Your task to perform on an android device: set default search engine in the chrome app Image 0: 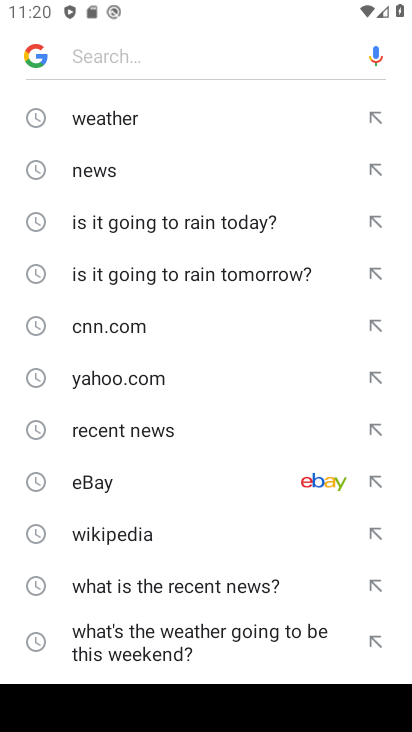
Step 0: press home button
Your task to perform on an android device: set default search engine in the chrome app Image 1: 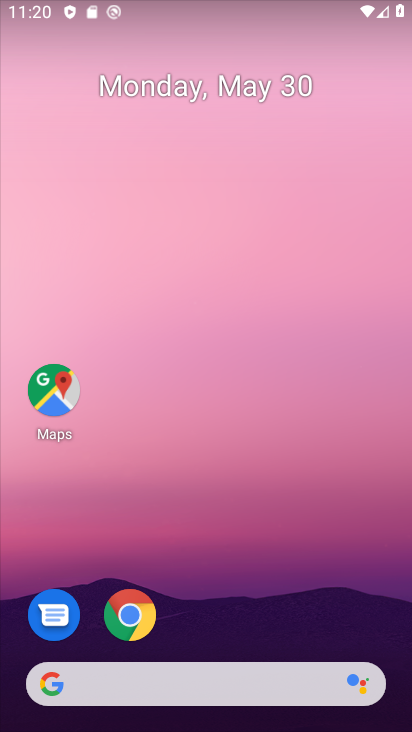
Step 1: drag from (323, 492) to (329, 222)
Your task to perform on an android device: set default search engine in the chrome app Image 2: 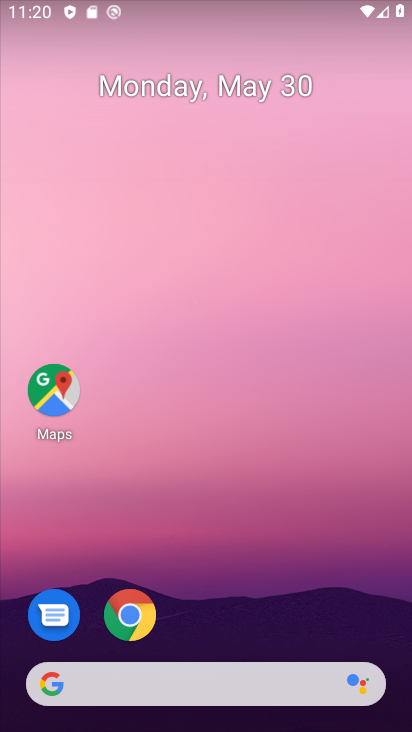
Step 2: drag from (308, 498) to (312, 50)
Your task to perform on an android device: set default search engine in the chrome app Image 3: 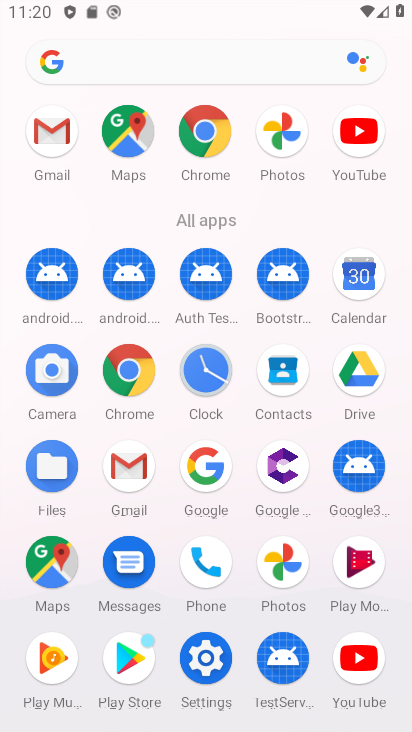
Step 3: click (140, 386)
Your task to perform on an android device: set default search engine in the chrome app Image 4: 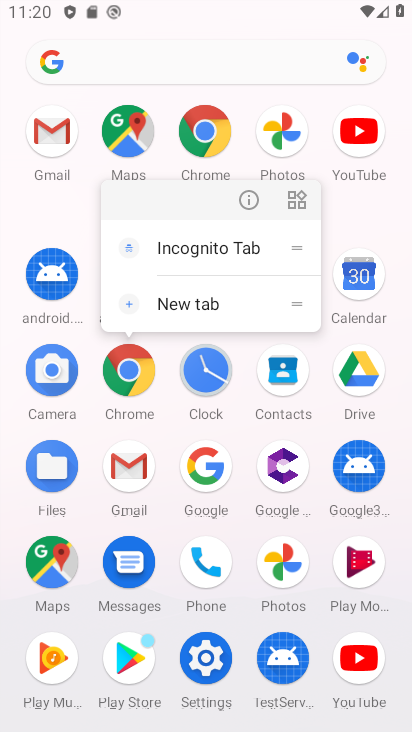
Step 4: click (140, 386)
Your task to perform on an android device: set default search engine in the chrome app Image 5: 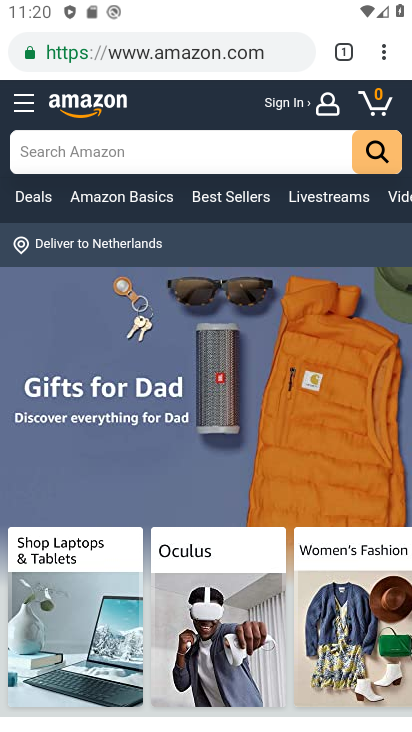
Step 5: click (387, 55)
Your task to perform on an android device: set default search engine in the chrome app Image 6: 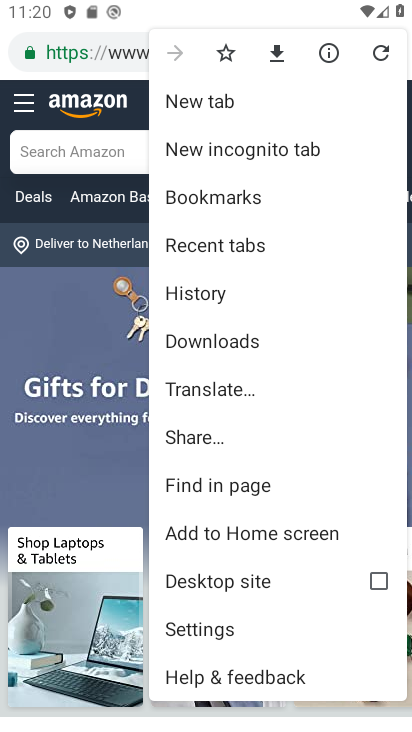
Step 6: drag from (349, 422) to (352, 177)
Your task to perform on an android device: set default search engine in the chrome app Image 7: 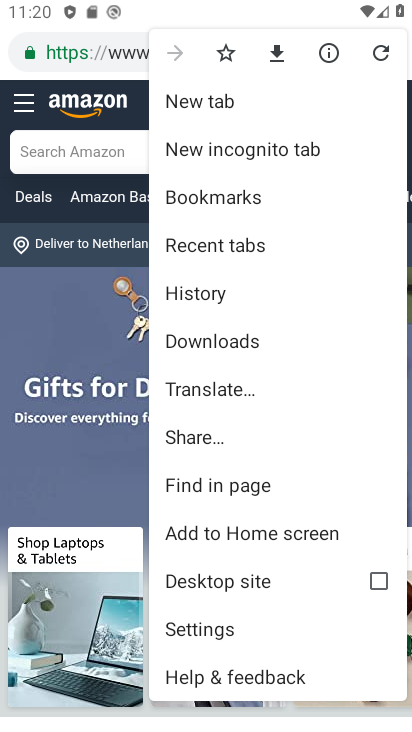
Step 7: click (224, 631)
Your task to perform on an android device: set default search engine in the chrome app Image 8: 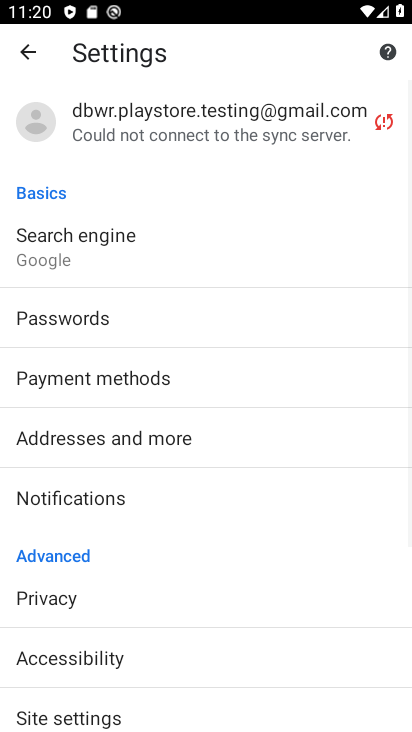
Step 8: drag from (311, 584) to (320, 434)
Your task to perform on an android device: set default search engine in the chrome app Image 9: 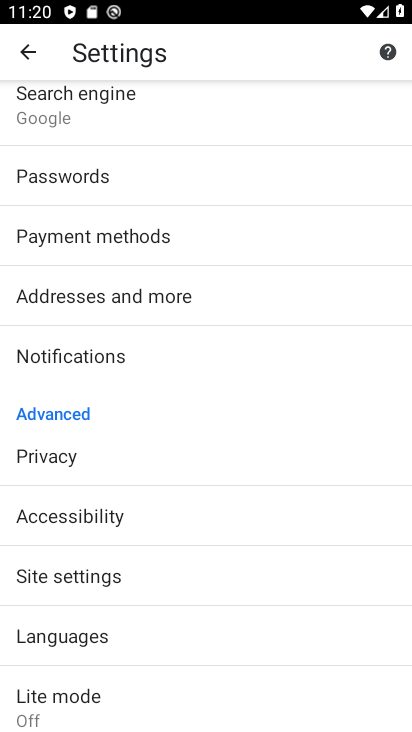
Step 9: drag from (327, 581) to (331, 456)
Your task to perform on an android device: set default search engine in the chrome app Image 10: 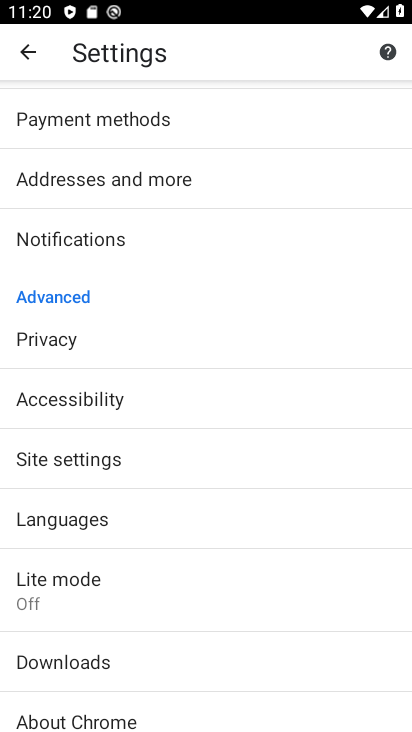
Step 10: drag from (335, 574) to (341, 512)
Your task to perform on an android device: set default search engine in the chrome app Image 11: 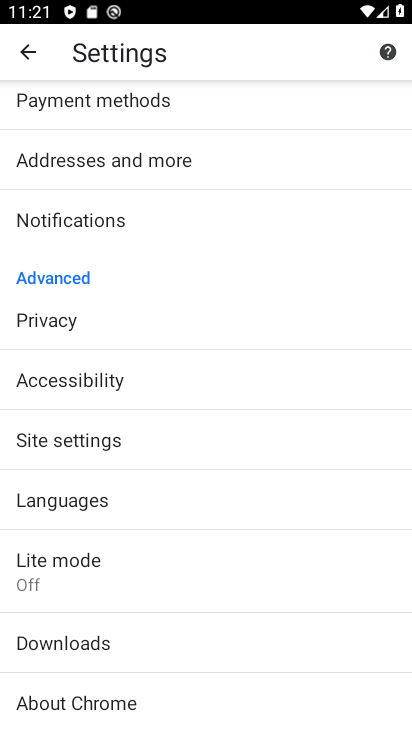
Step 11: drag from (327, 578) to (306, 375)
Your task to perform on an android device: set default search engine in the chrome app Image 12: 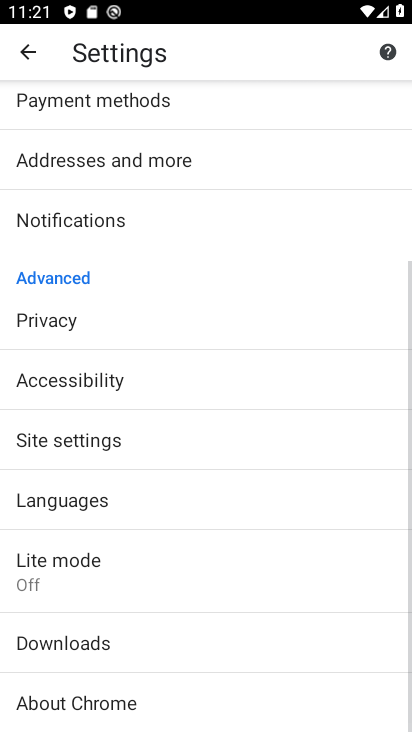
Step 12: drag from (302, 348) to (286, 392)
Your task to perform on an android device: set default search engine in the chrome app Image 13: 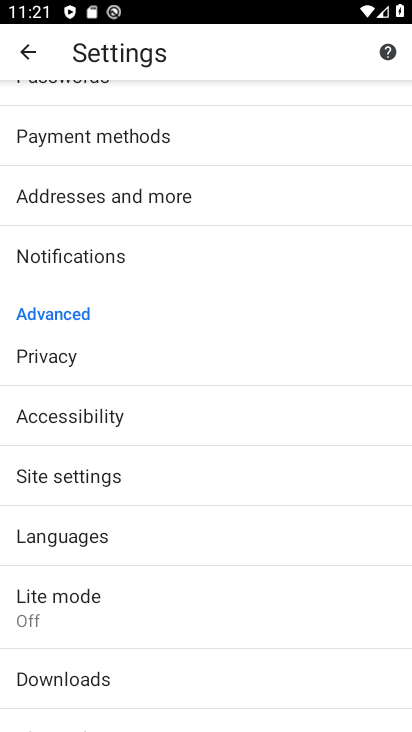
Step 13: click (291, 346)
Your task to perform on an android device: set default search engine in the chrome app Image 14: 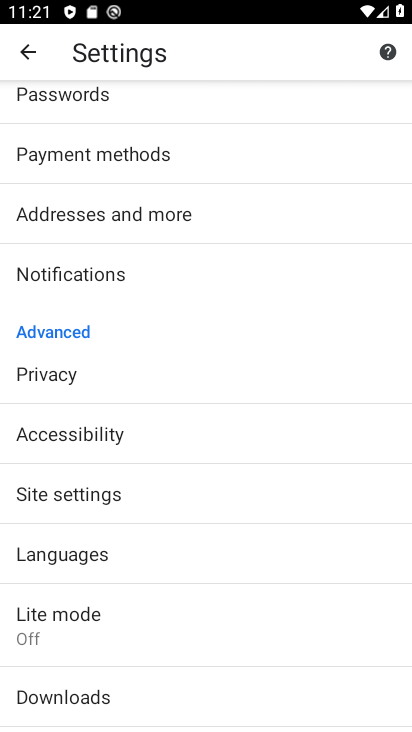
Step 14: drag from (290, 259) to (290, 411)
Your task to perform on an android device: set default search engine in the chrome app Image 15: 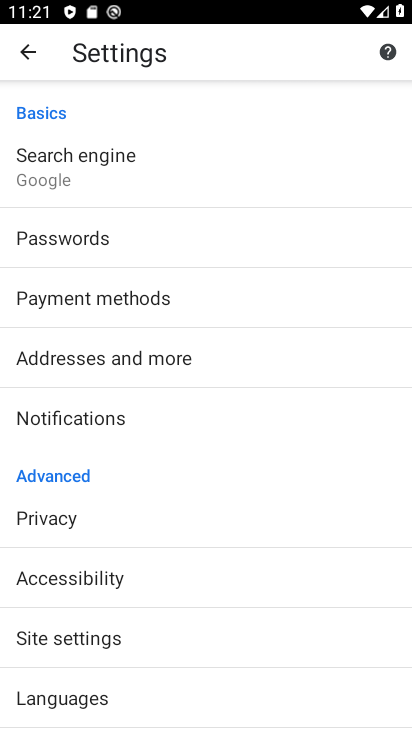
Step 15: drag from (297, 279) to (295, 344)
Your task to perform on an android device: set default search engine in the chrome app Image 16: 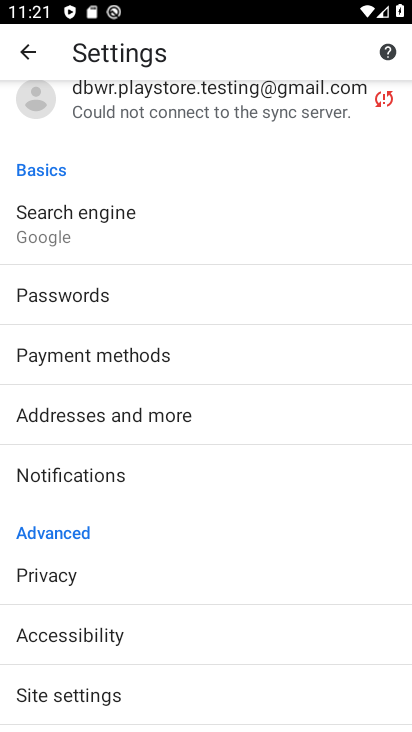
Step 16: click (162, 212)
Your task to perform on an android device: set default search engine in the chrome app Image 17: 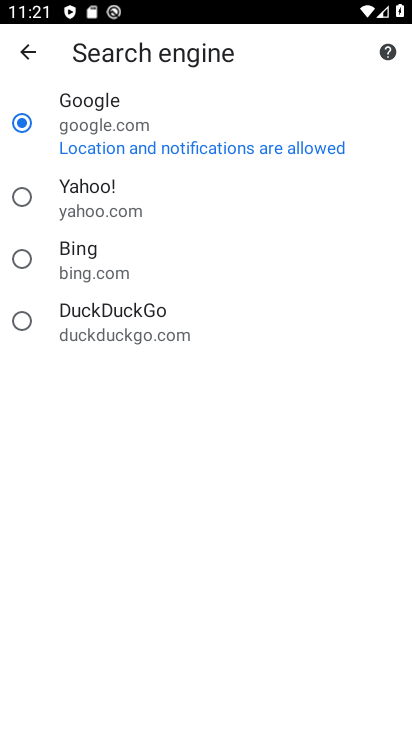
Step 17: click (109, 259)
Your task to perform on an android device: set default search engine in the chrome app Image 18: 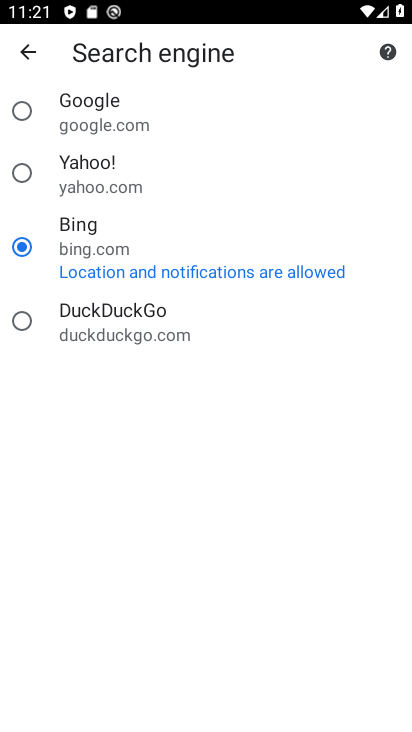
Step 18: task complete